Your task to perform on an android device: check android version Image 0: 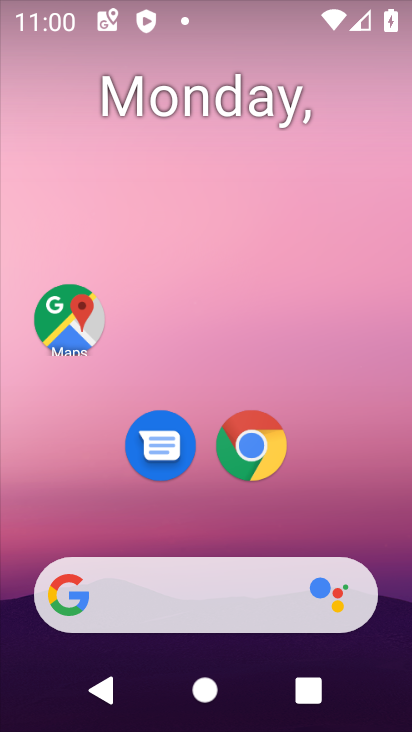
Step 0: drag from (208, 523) to (250, 65)
Your task to perform on an android device: check android version Image 1: 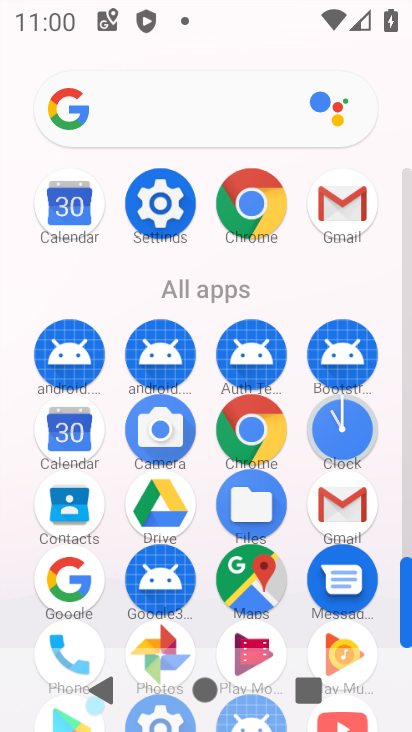
Step 1: click (142, 194)
Your task to perform on an android device: check android version Image 2: 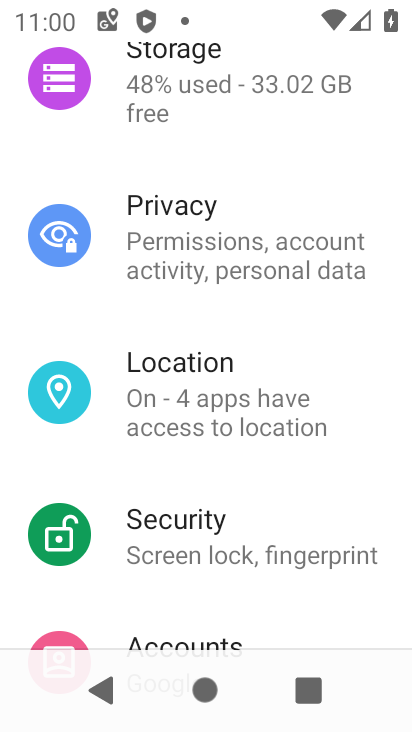
Step 2: drag from (168, 555) to (272, 84)
Your task to perform on an android device: check android version Image 3: 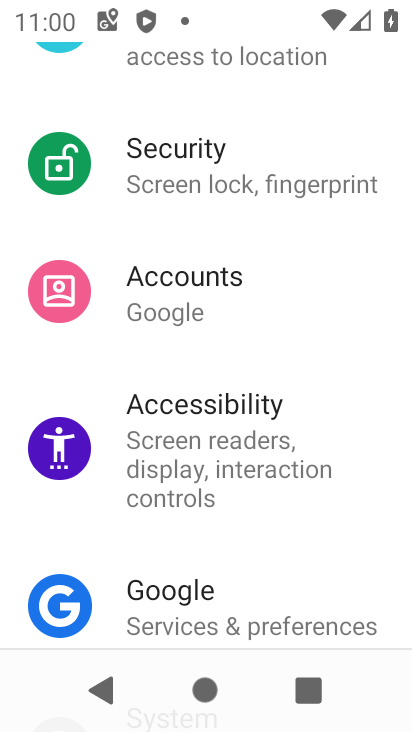
Step 3: drag from (239, 627) to (286, 47)
Your task to perform on an android device: check android version Image 4: 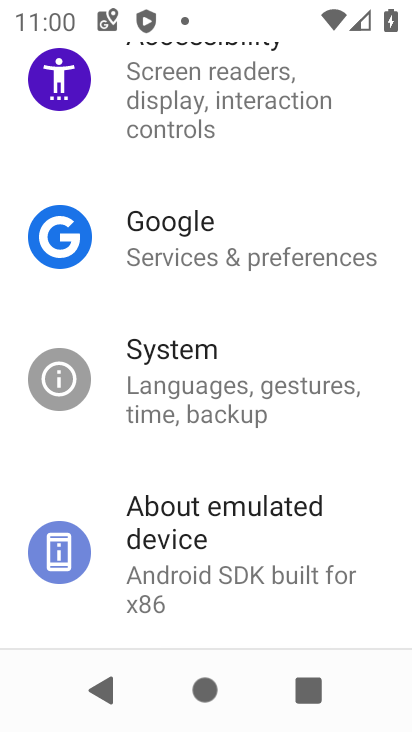
Step 4: drag from (181, 560) to (262, 43)
Your task to perform on an android device: check android version Image 5: 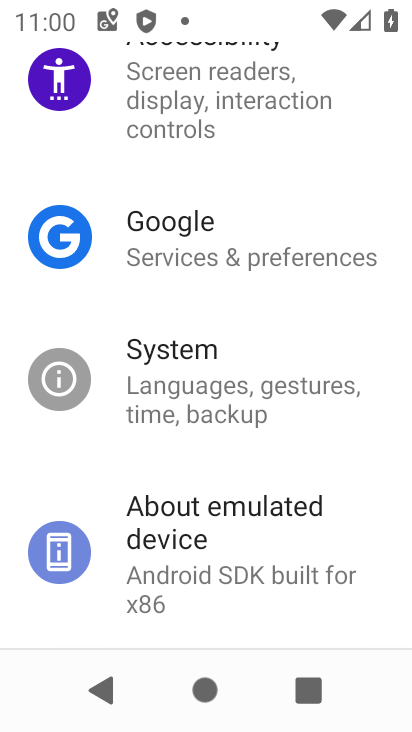
Step 5: click (218, 549)
Your task to perform on an android device: check android version Image 6: 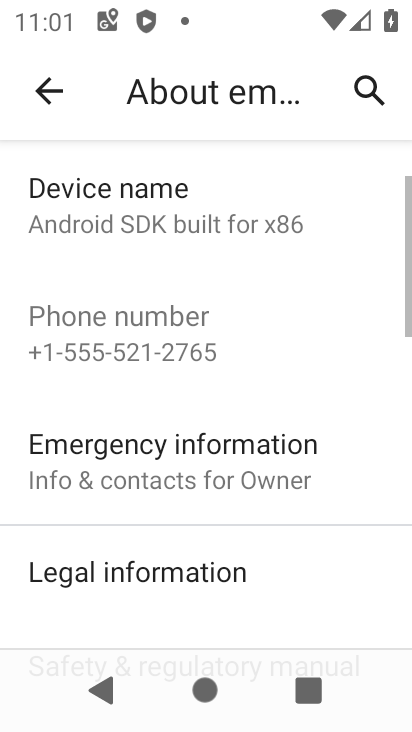
Step 6: drag from (184, 588) to (257, 97)
Your task to perform on an android device: check android version Image 7: 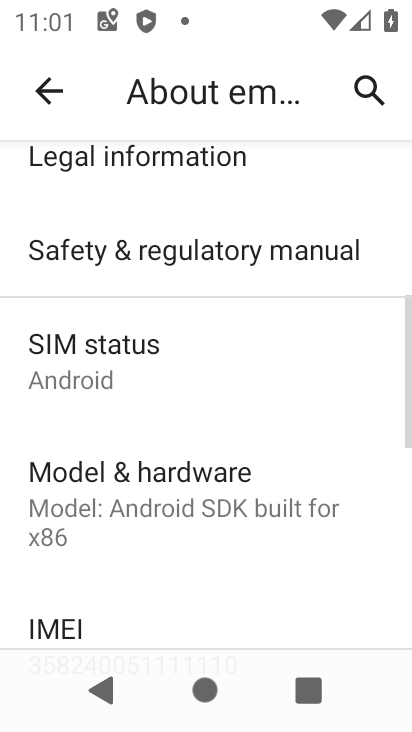
Step 7: drag from (161, 571) to (272, 100)
Your task to perform on an android device: check android version Image 8: 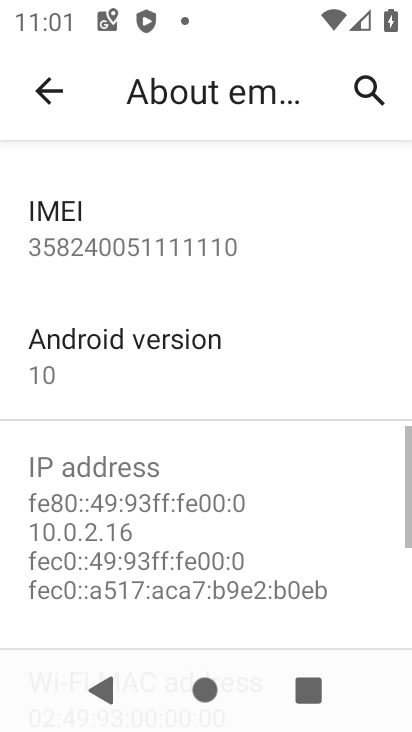
Step 8: click (109, 337)
Your task to perform on an android device: check android version Image 9: 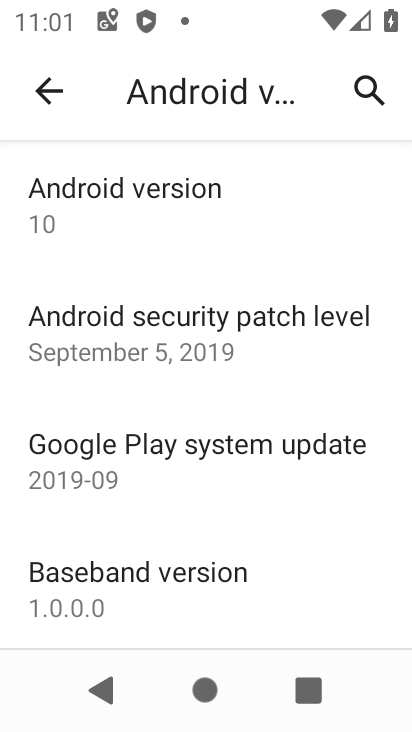
Step 9: click (142, 193)
Your task to perform on an android device: check android version Image 10: 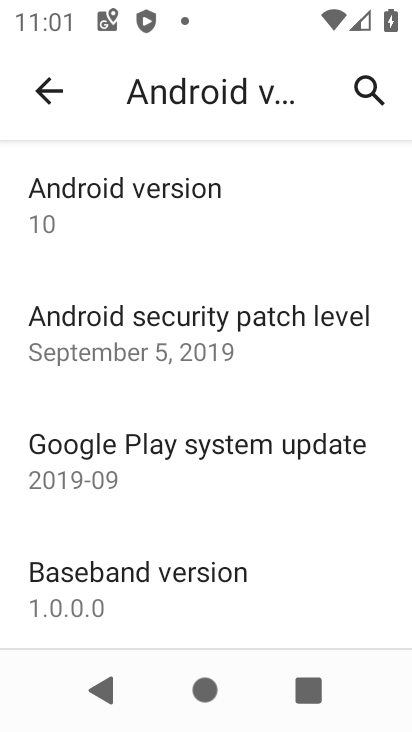
Step 10: click (135, 198)
Your task to perform on an android device: check android version Image 11: 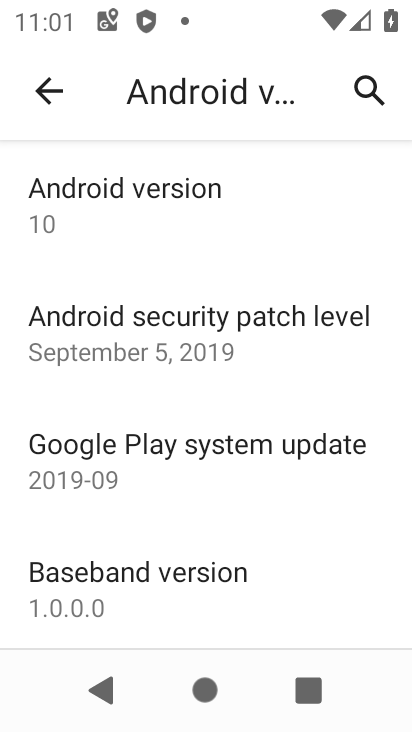
Step 11: task complete